Your task to perform on an android device: add a contact Image 0: 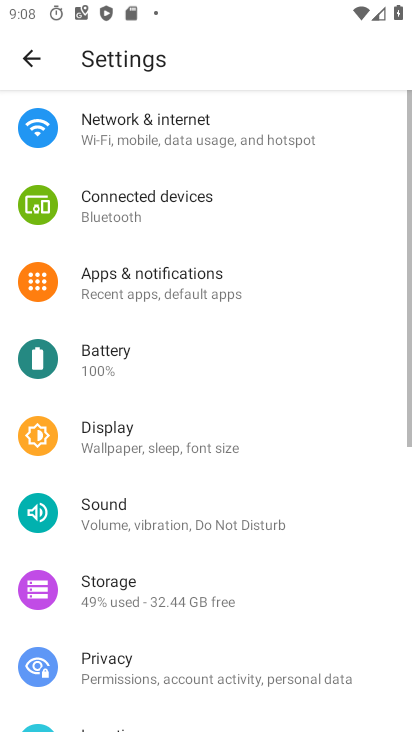
Step 0: press back button
Your task to perform on an android device: add a contact Image 1: 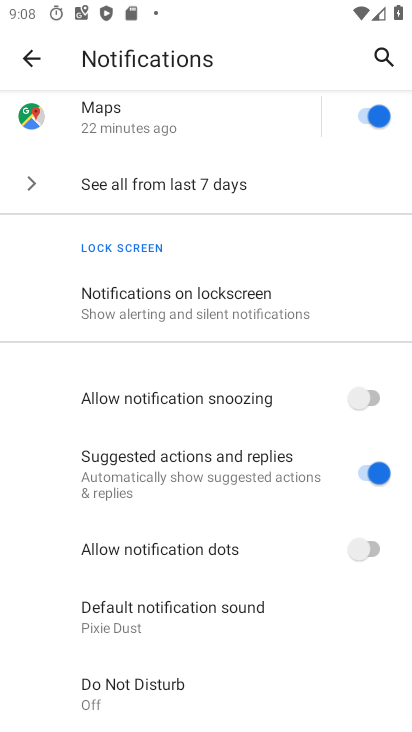
Step 1: press back button
Your task to perform on an android device: add a contact Image 2: 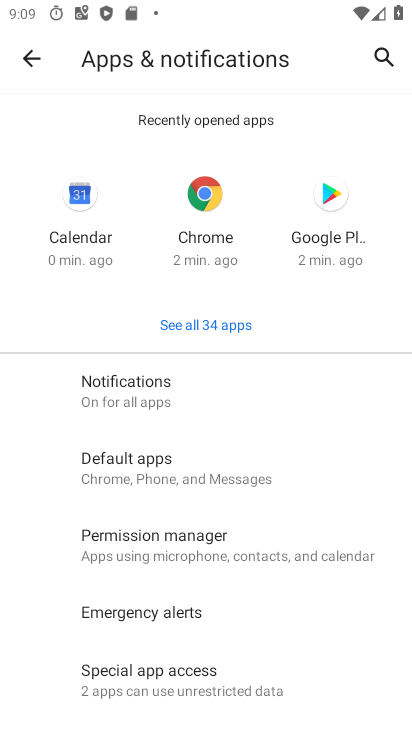
Step 2: press home button
Your task to perform on an android device: add a contact Image 3: 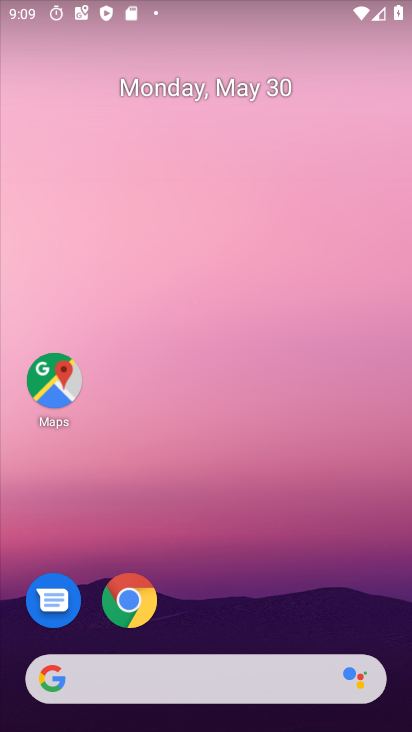
Step 3: drag from (277, 554) to (257, 0)
Your task to perform on an android device: add a contact Image 4: 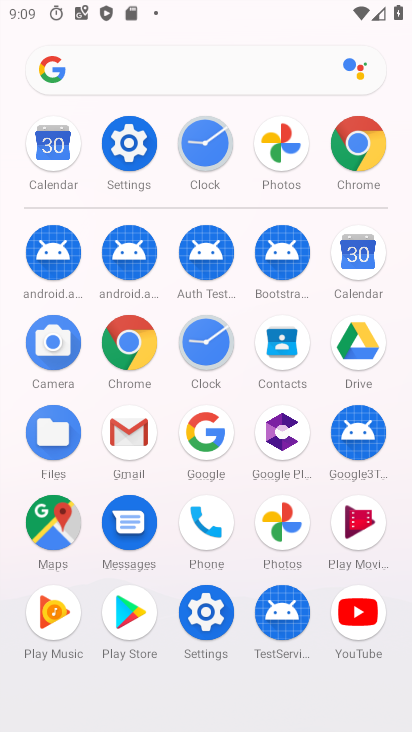
Step 4: click (273, 339)
Your task to perform on an android device: add a contact Image 5: 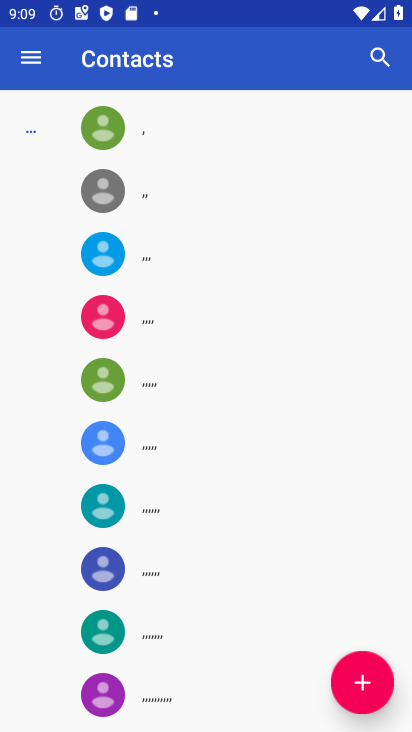
Step 5: click (360, 681)
Your task to perform on an android device: add a contact Image 6: 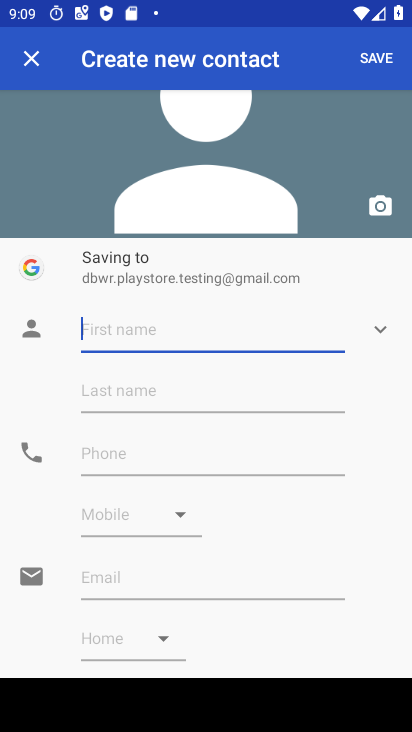
Step 6: type "wrttttt"
Your task to perform on an android device: add a contact Image 7: 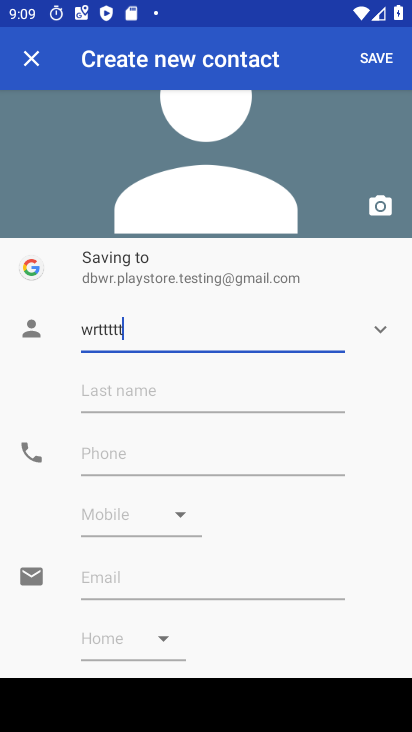
Step 7: type ""
Your task to perform on an android device: add a contact Image 8: 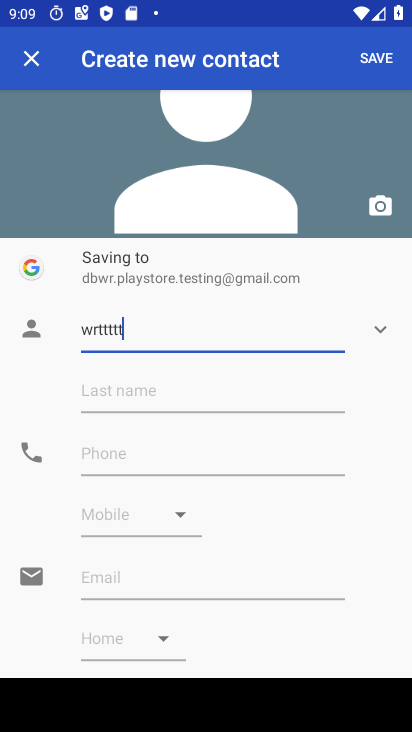
Step 8: click (175, 448)
Your task to perform on an android device: add a contact Image 9: 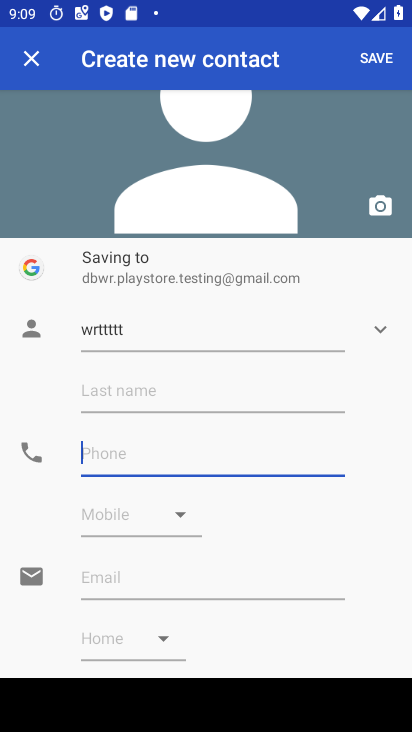
Step 9: type "2345679"
Your task to perform on an android device: add a contact Image 10: 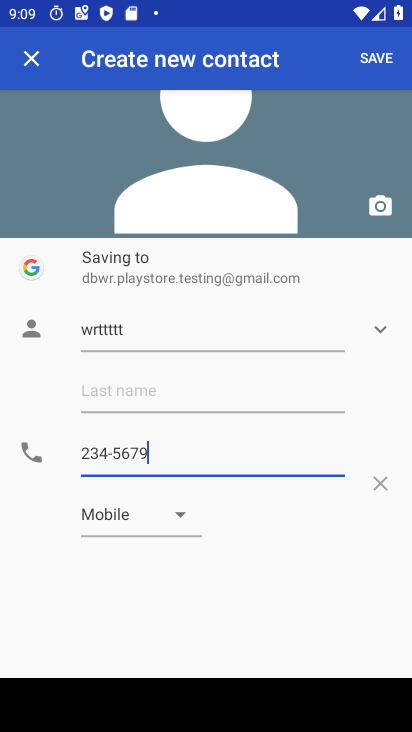
Step 10: type ""
Your task to perform on an android device: add a contact Image 11: 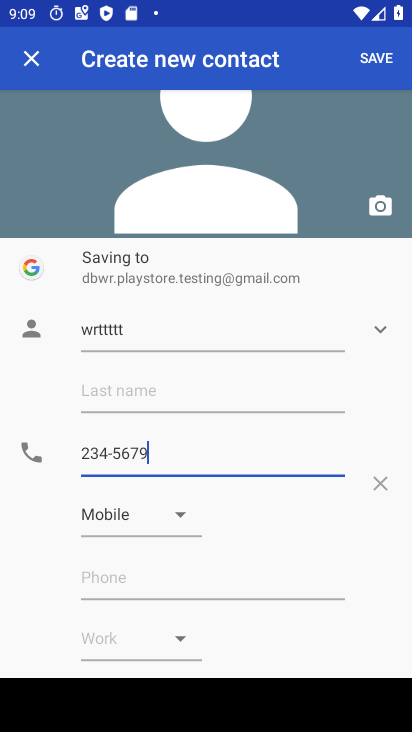
Step 11: click (383, 60)
Your task to perform on an android device: add a contact Image 12: 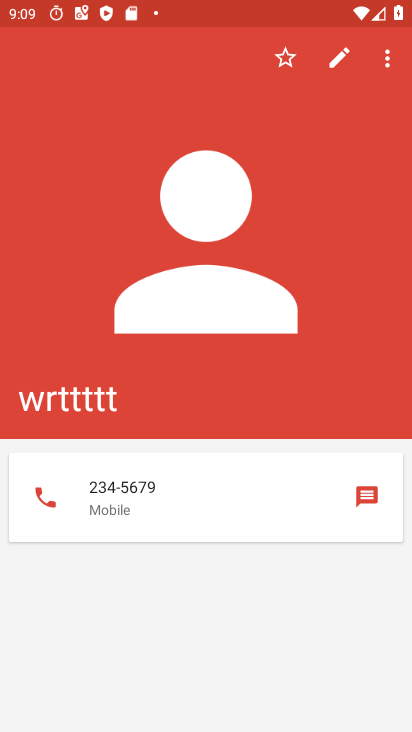
Step 12: task complete